Your task to perform on an android device: turn vacation reply on in the gmail app Image 0: 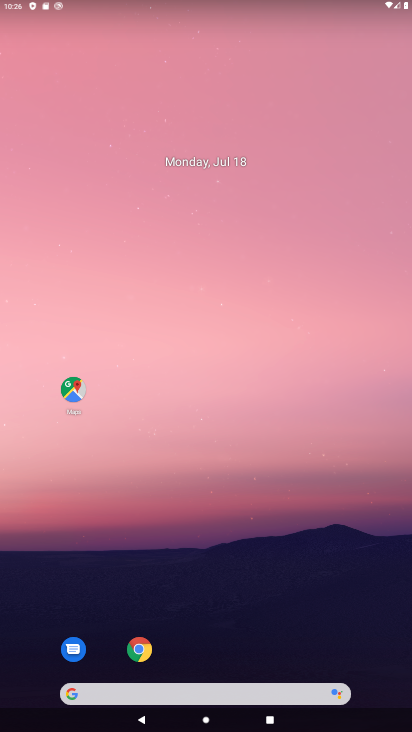
Step 0: drag from (239, 608) to (188, 80)
Your task to perform on an android device: turn vacation reply on in the gmail app Image 1: 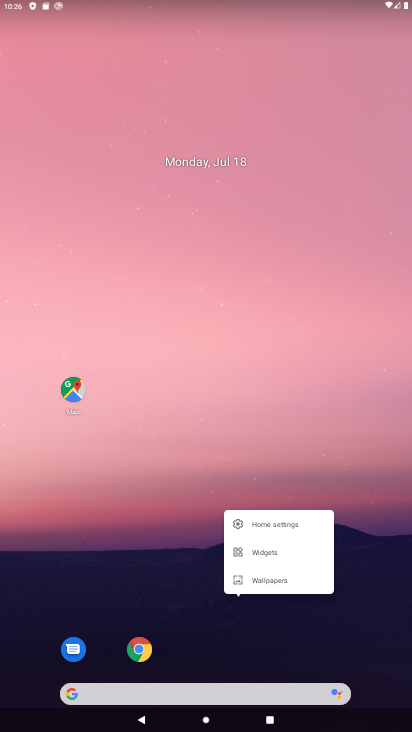
Step 1: click (172, 574)
Your task to perform on an android device: turn vacation reply on in the gmail app Image 2: 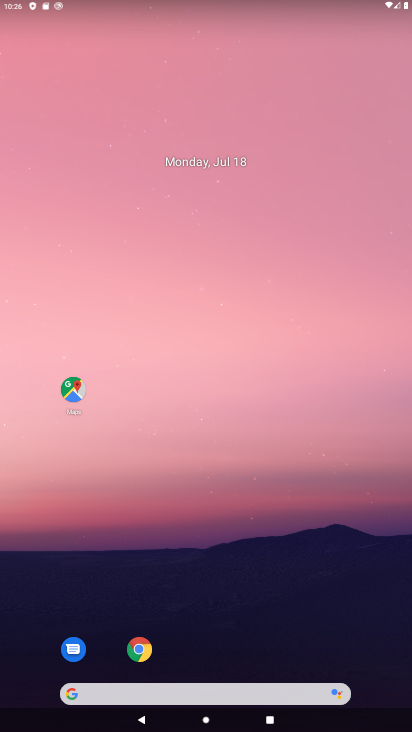
Step 2: drag from (189, 578) to (165, 163)
Your task to perform on an android device: turn vacation reply on in the gmail app Image 3: 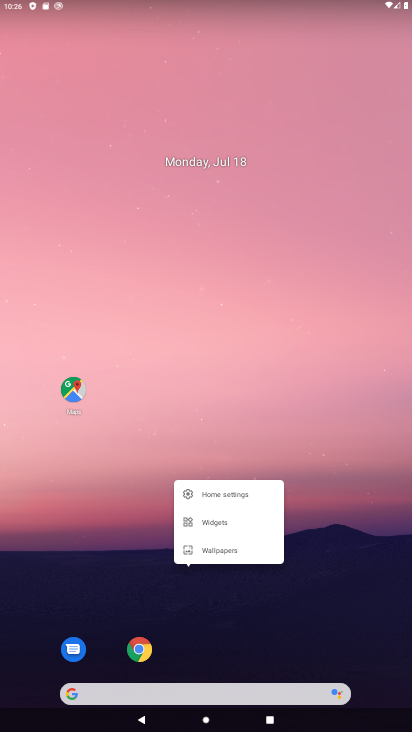
Step 3: click (309, 560)
Your task to perform on an android device: turn vacation reply on in the gmail app Image 4: 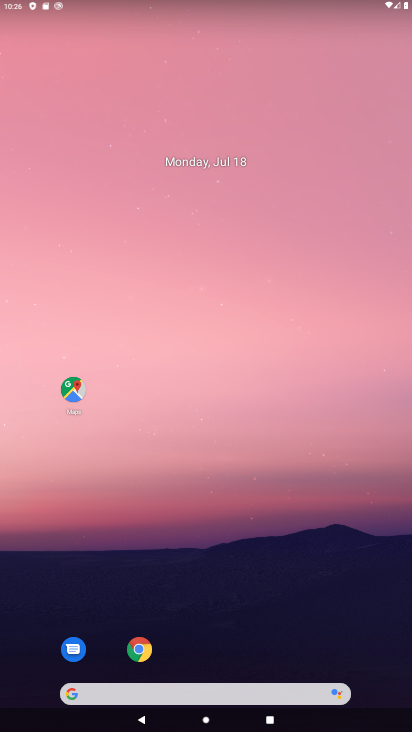
Step 4: drag from (277, 611) to (205, 0)
Your task to perform on an android device: turn vacation reply on in the gmail app Image 5: 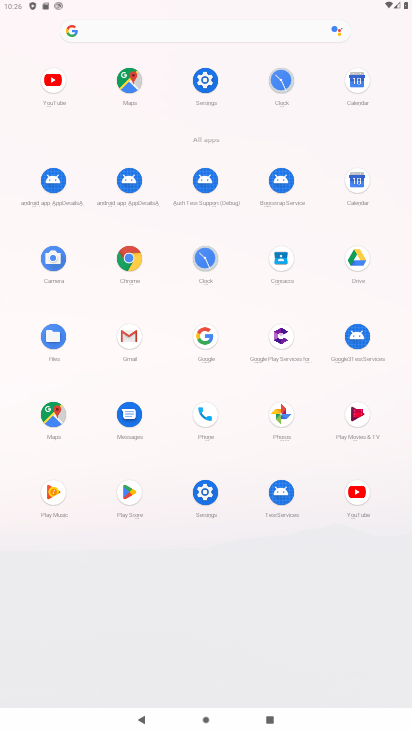
Step 5: click (128, 336)
Your task to perform on an android device: turn vacation reply on in the gmail app Image 6: 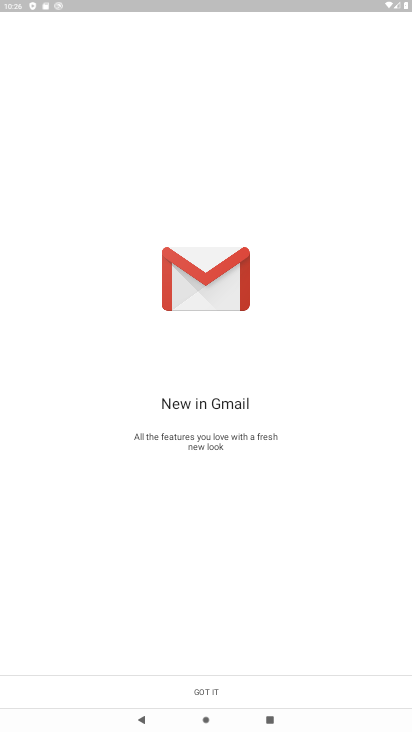
Step 6: click (203, 691)
Your task to perform on an android device: turn vacation reply on in the gmail app Image 7: 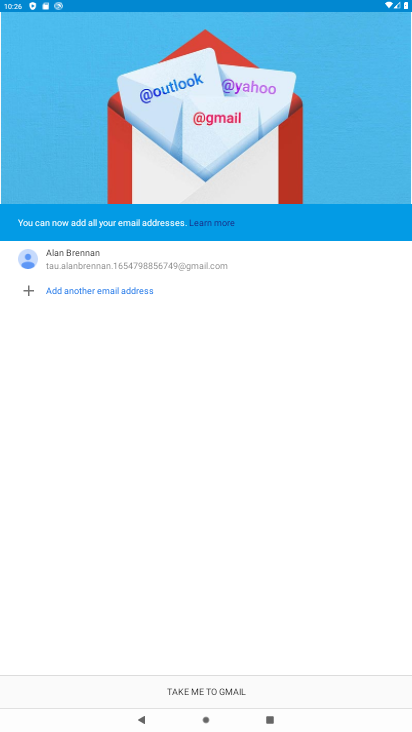
Step 7: click (205, 691)
Your task to perform on an android device: turn vacation reply on in the gmail app Image 8: 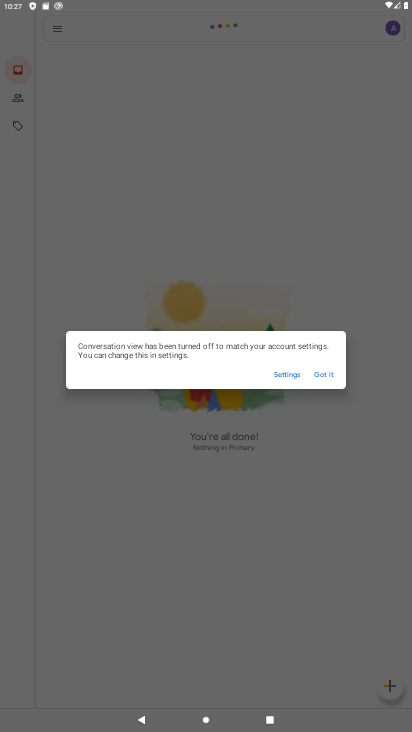
Step 8: click (322, 372)
Your task to perform on an android device: turn vacation reply on in the gmail app Image 9: 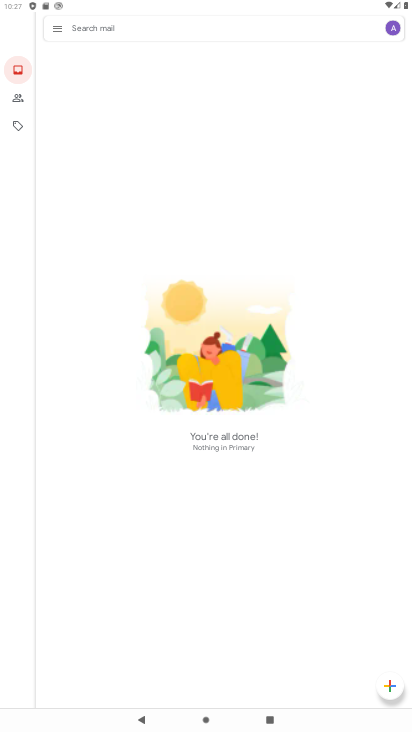
Step 9: click (54, 28)
Your task to perform on an android device: turn vacation reply on in the gmail app Image 10: 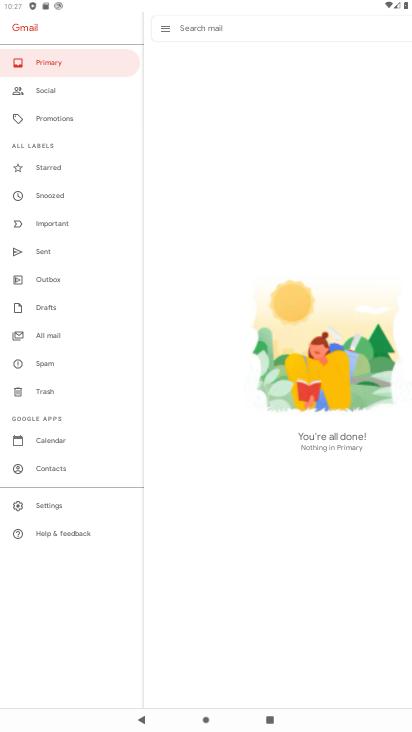
Step 10: click (45, 507)
Your task to perform on an android device: turn vacation reply on in the gmail app Image 11: 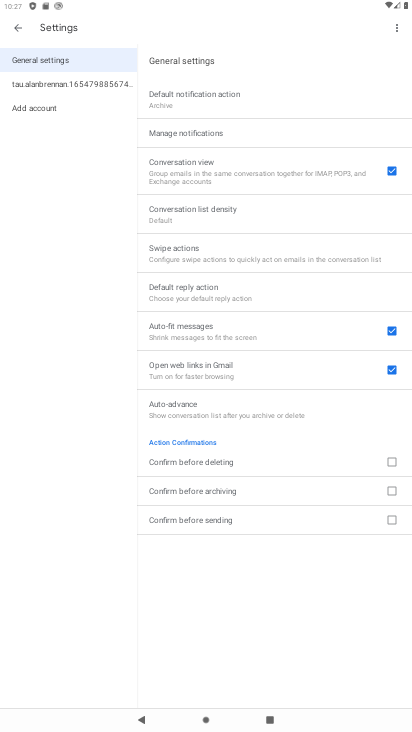
Step 11: click (58, 78)
Your task to perform on an android device: turn vacation reply on in the gmail app Image 12: 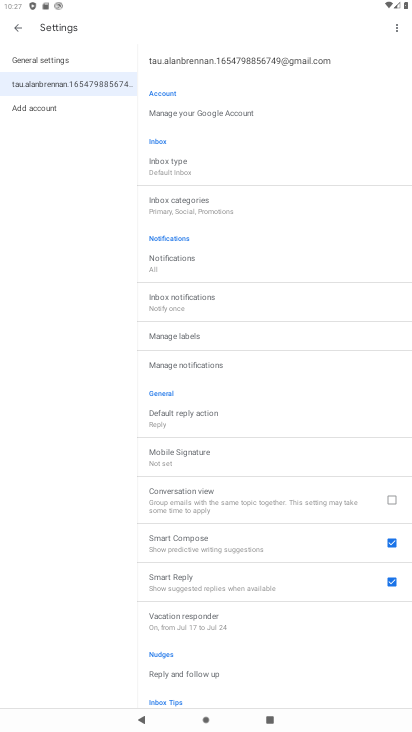
Step 12: click (179, 618)
Your task to perform on an android device: turn vacation reply on in the gmail app Image 13: 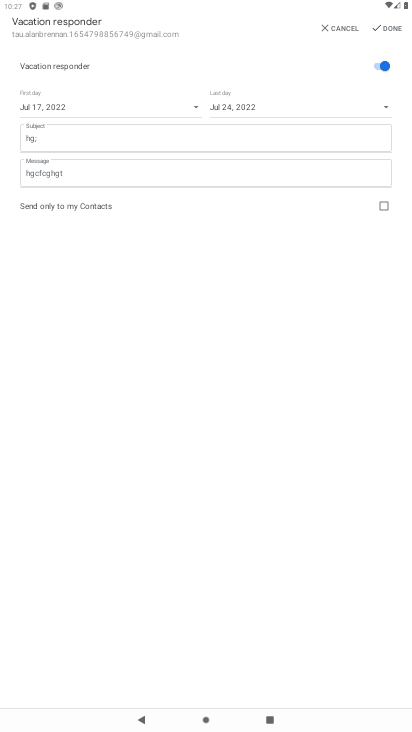
Step 13: click (384, 22)
Your task to perform on an android device: turn vacation reply on in the gmail app Image 14: 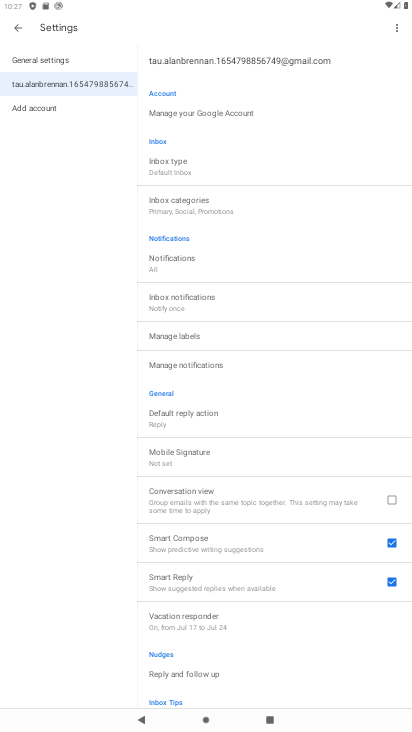
Step 14: task complete